Your task to perform on an android device: Go to battery settings Image 0: 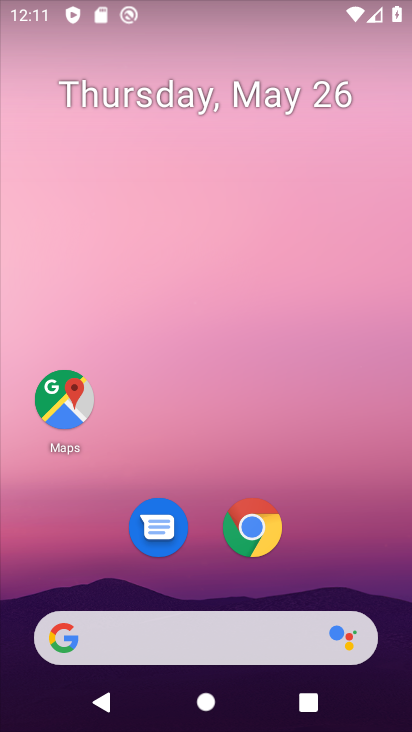
Step 0: drag from (191, 584) to (235, 177)
Your task to perform on an android device: Go to battery settings Image 1: 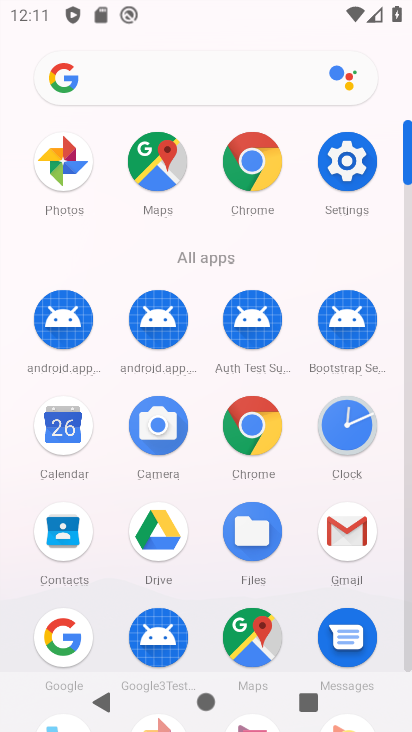
Step 1: click (353, 143)
Your task to perform on an android device: Go to battery settings Image 2: 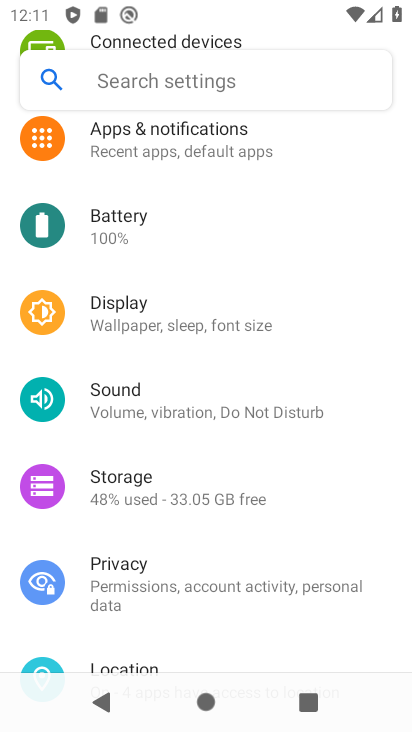
Step 2: click (165, 249)
Your task to perform on an android device: Go to battery settings Image 3: 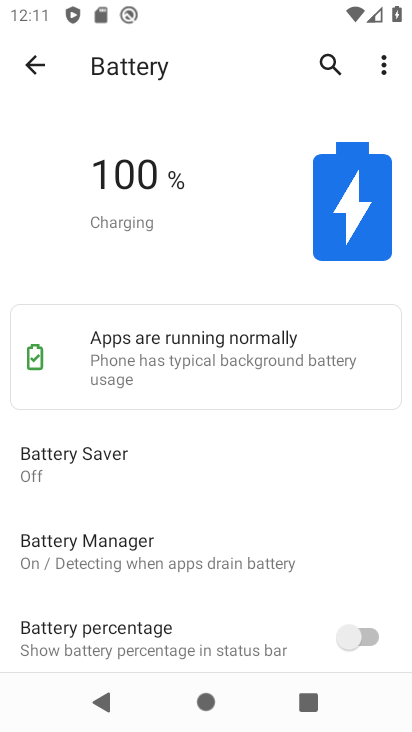
Step 3: task complete